Your task to perform on an android device: Open display settings Image 0: 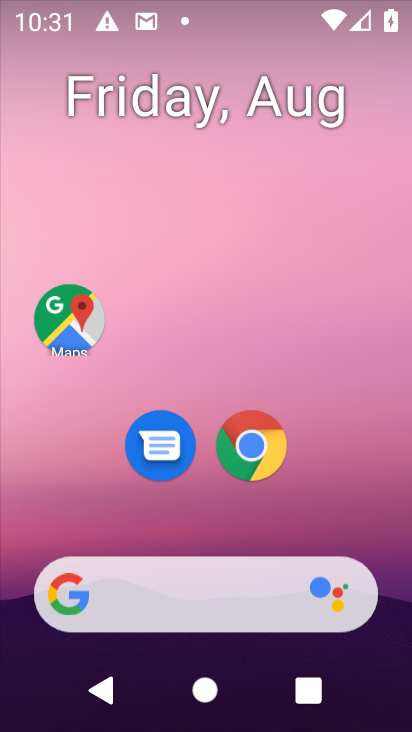
Step 0: drag from (200, 512) to (267, 9)
Your task to perform on an android device: Open display settings Image 1: 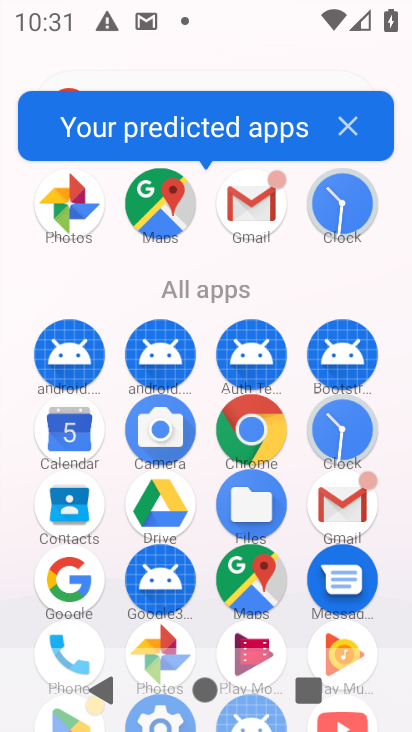
Step 1: drag from (190, 593) to (274, 24)
Your task to perform on an android device: Open display settings Image 2: 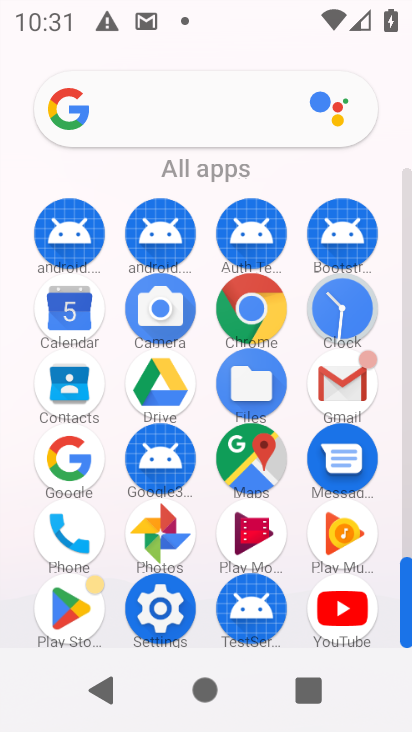
Step 2: click (168, 603)
Your task to perform on an android device: Open display settings Image 3: 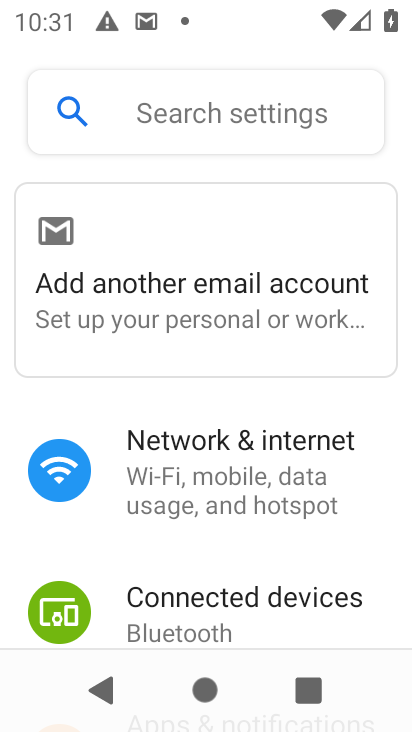
Step 3: drag from (218, 523) to (296, 50)
Your task to perform on an android device: Open display settings Image 4: 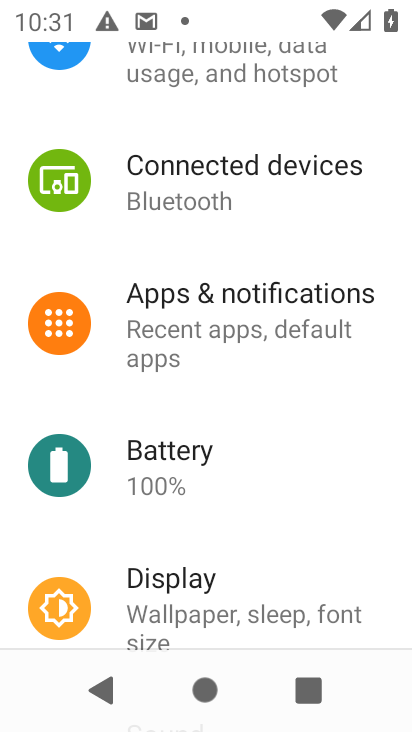
Step 4: click (176, 598)
Your task to perform on an android device: Open display settings Image 5: 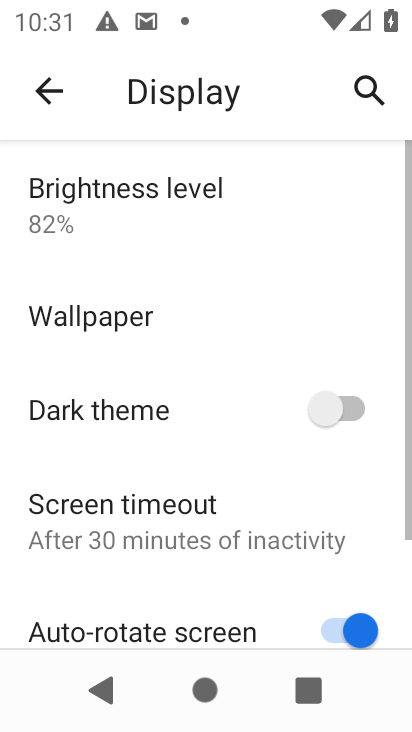
Step 5: click (244, 6)
Your task to perform on an android device: Open display settings Image 6: 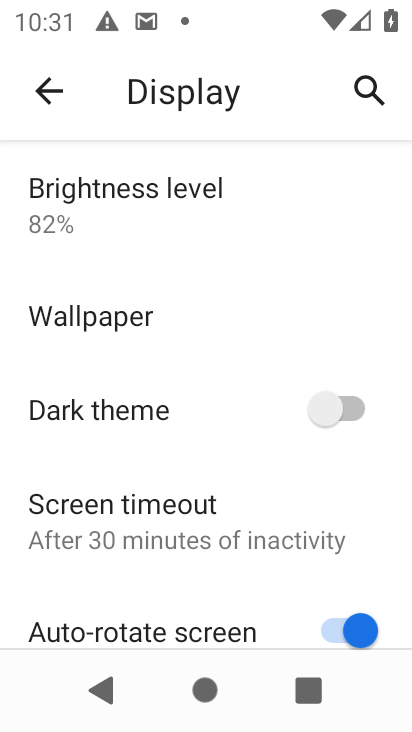
Step 6: drag from (227, 557) to (264, 27)
Your task to perform on an android device: Open display settings Image 7: 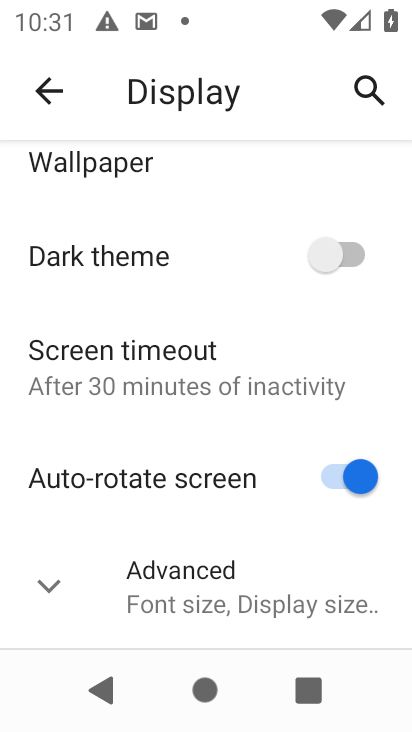
Step 7: click (203, 571)
Your task to perform on an android device: Open display settings Image 8: 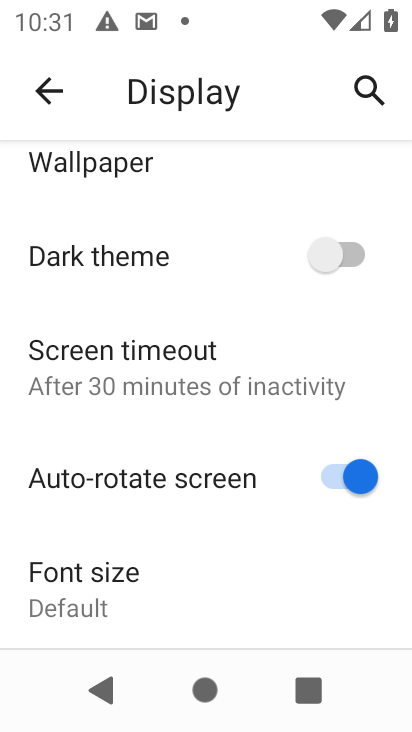
Step 8: click (138, 581)
Your task to perform on an android device: Open display settings Image 9: 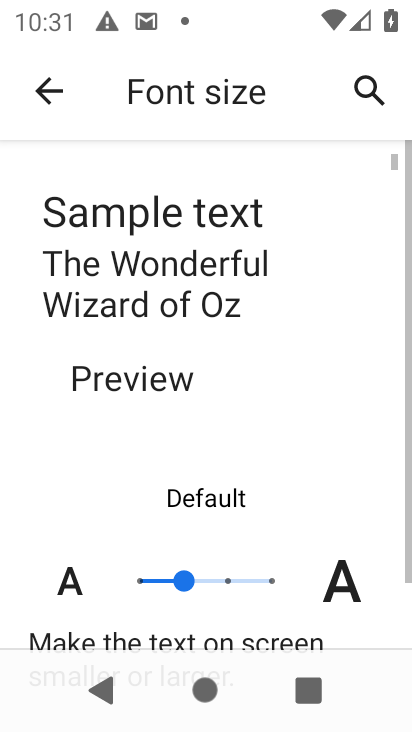
Step 9: click (177, 583)
Your task to perform on an android device: Open display settings Image 10: 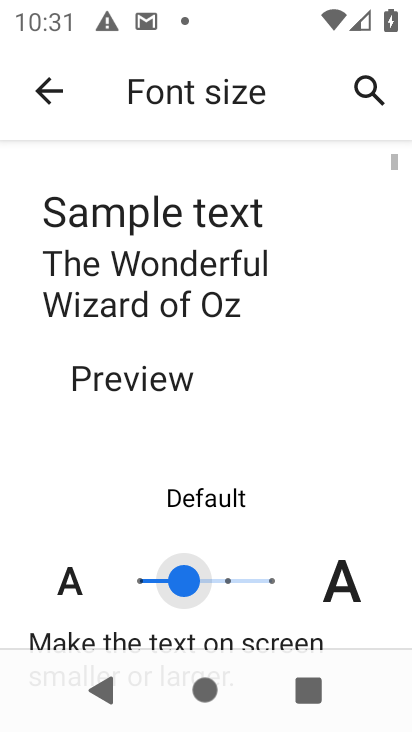
Step 10: click (44, 88)
Your task to perform on an android device: Open display settings Image 11: 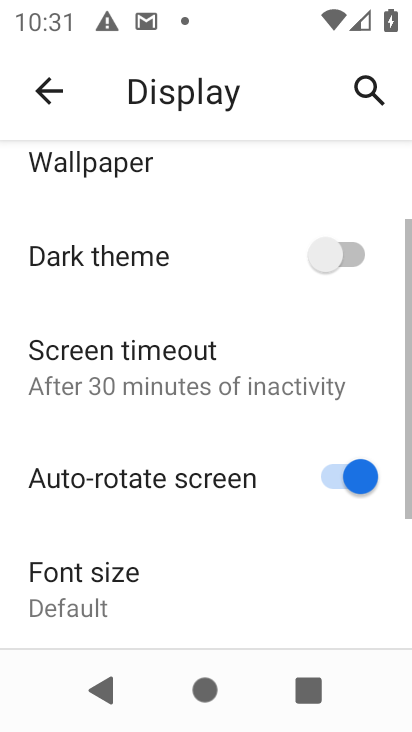
Step 11: drag from (205, 595) to (234, 167)
Your task to perform on an android device: Open display settings Image 12: 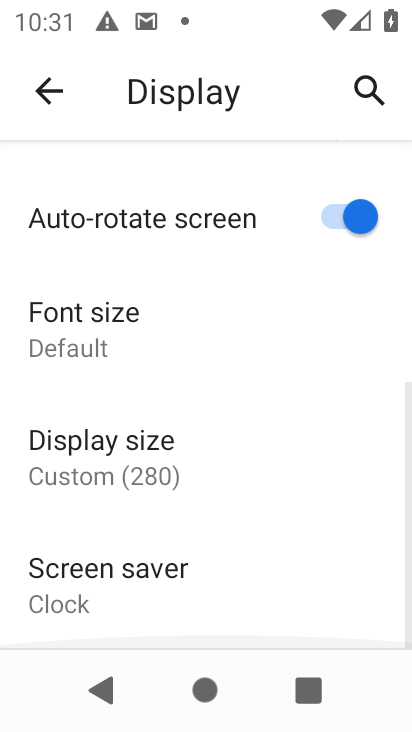
Step 12: click (142, 470)
Your task to perform on an android device: Open display settings Image 13: 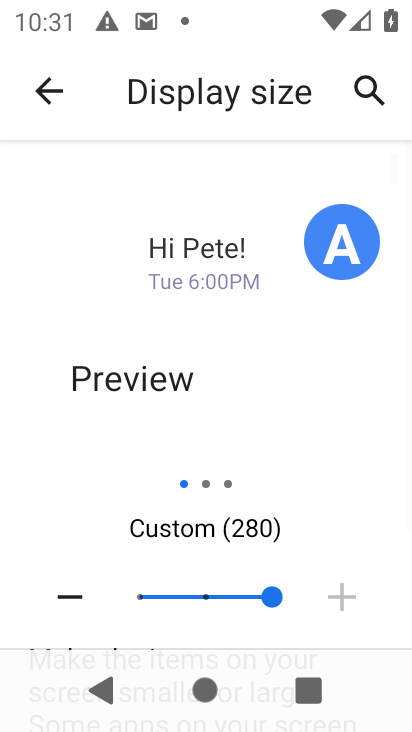
Step 13: click (202, 596)
Your task to perform on an android device: Open display settings Image 14: 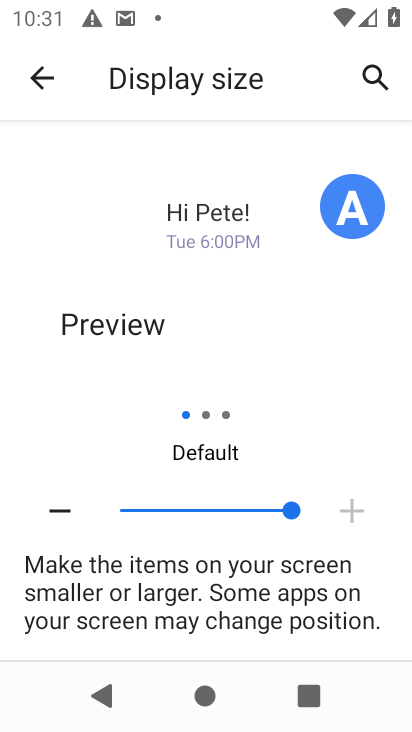
Step 14: task complete